Your task to perform on an android device: all mails in gmail Image 0: 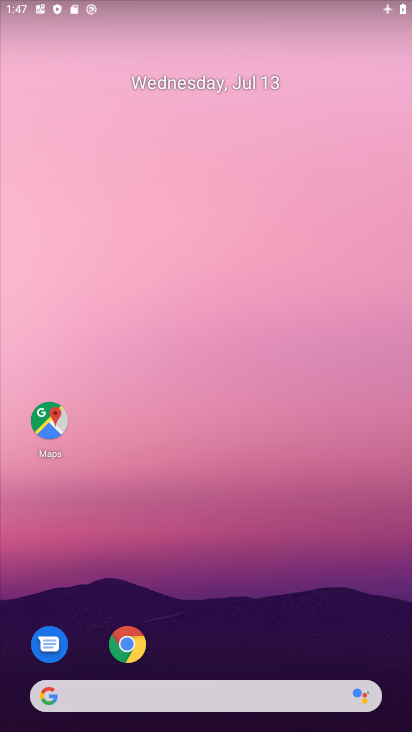
Step 0: drag from (304, 650) to (308, 150)
Your task to perform on an android device: all mails in gmail Image 1: 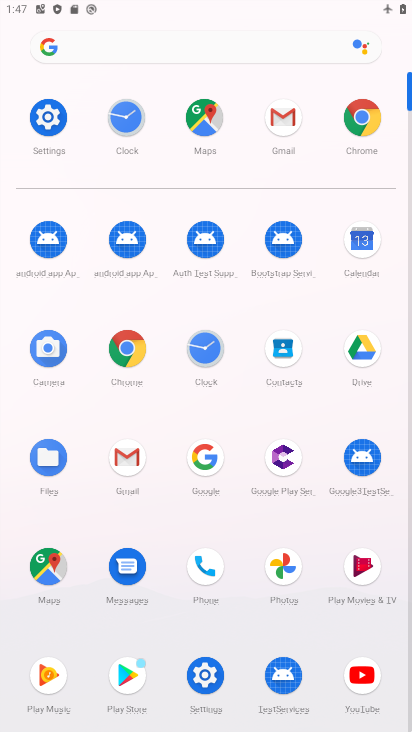
Step 1: click (292, 126)
Your task to perform on an android device: all mails in gmail Image 2: 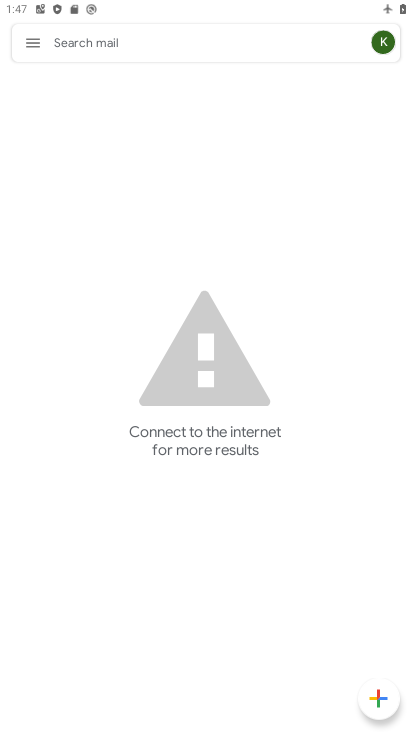
Step 2: click (40, 38)
Your task to perform on an android device: all mails in gmail Image 3: 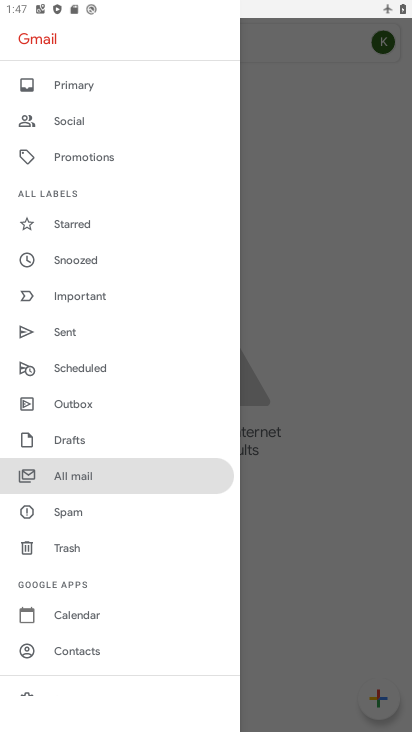
Step 3: click (116, 477)
Your task to perform on an android device: all mails in gmail Image 4: 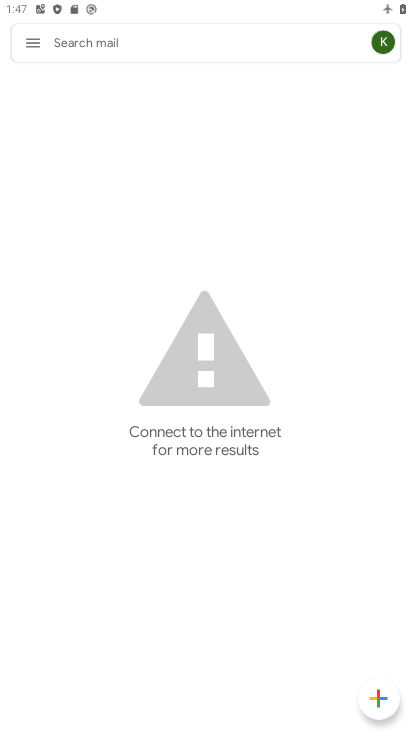
Step 4: task complete